Your task to perform on an android device: Show me productivity apps on the Play Store Image 0: 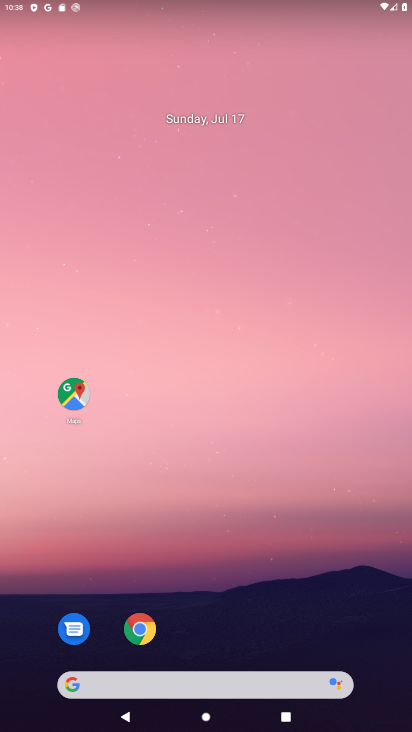
Step 0: drag from (205, 502) to (253, 159)
Your task to perform on an android device: Show me productivity apps on the Play Store Image 1: 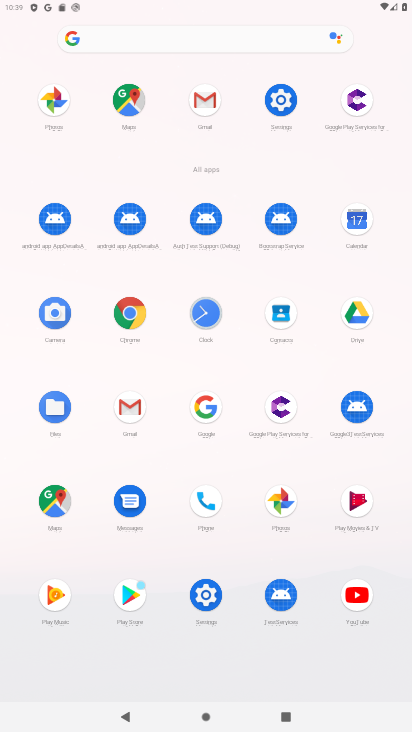
Step 1: click (122, 598)
Your task to perform on an android device: Show me productivity apps on the Play Store Image 2: 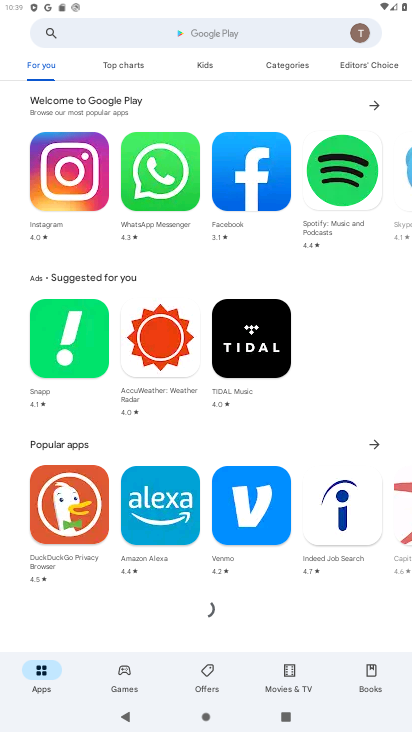
Step 2: click (115, 675)
Your task to perform on an android device: Show me productivity apps on the Play Store Image 3: 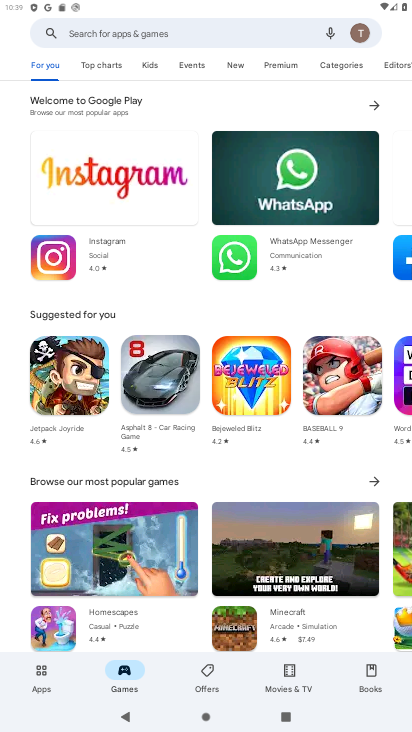
Step 3: task complete